Your task to perform on an android device: turn off notifications settings in the gmail app Image 0: 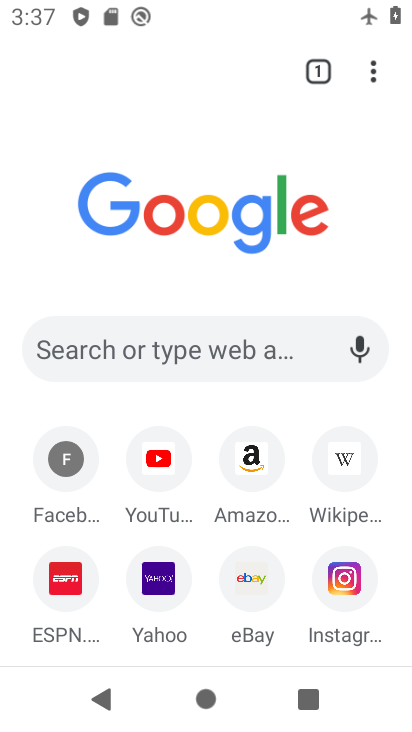
Step 0: press home button
Your task to perform on an android device: turn off notifications settings in the gmail app Image 1: 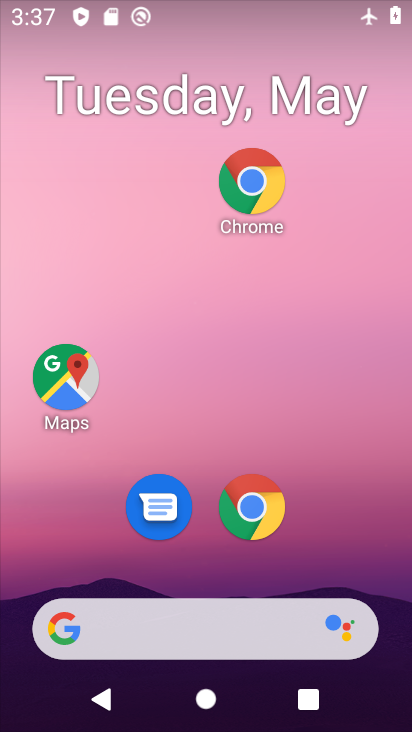
Step 1: drag from (374, 530) to (381, 135)
Your task to perform on an android device: turn off notifications settings in the gmail app Image 2: 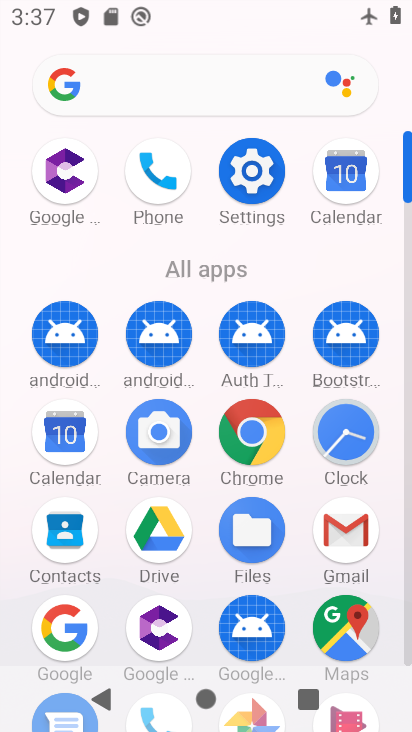
Step 2: click (342, 546)
Your task to perform on an android device: turn off notifications settings in the gmail app Image 3: 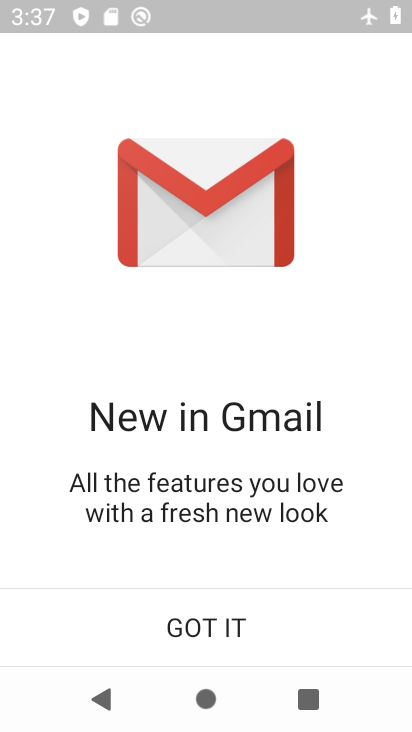
Step 3: click (217, 620)
Your task to perform on an android device: turn off notifications settings in the gmail app Image 4: 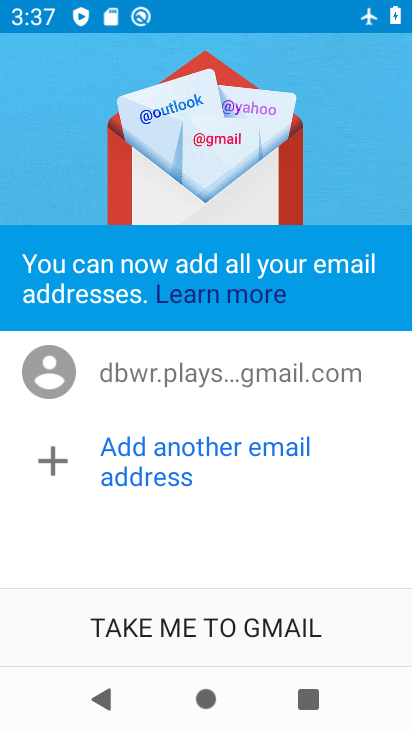
Step 4: click (217, 620)
Your task to perform on an android device: turn off notifications settings in the gmail app Image 5: 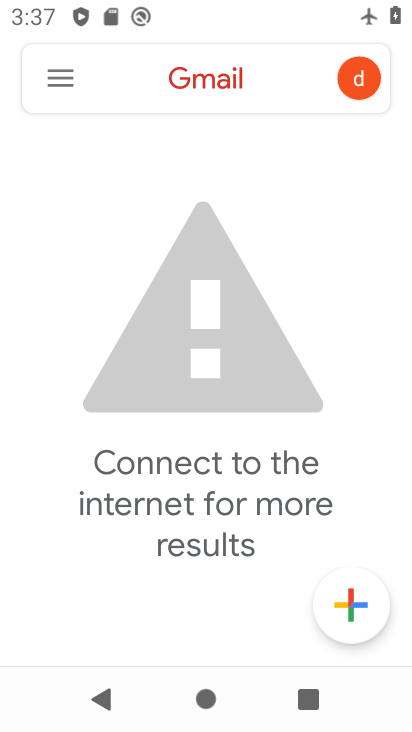
Step 5: click (75, 76)
Your task to perform on an android device: turn off notifications settings in the gmail app Image 6: 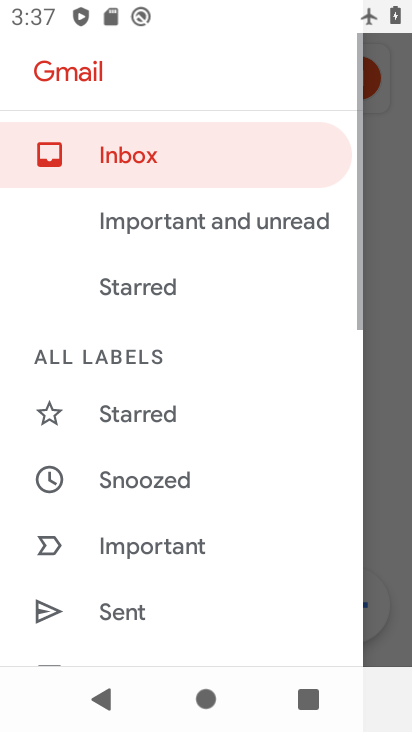
Step 6: drag from (234, 567) to (171, 197)
Your task to perform on an android device: turn off notifications settings in the gmail app Image 7: 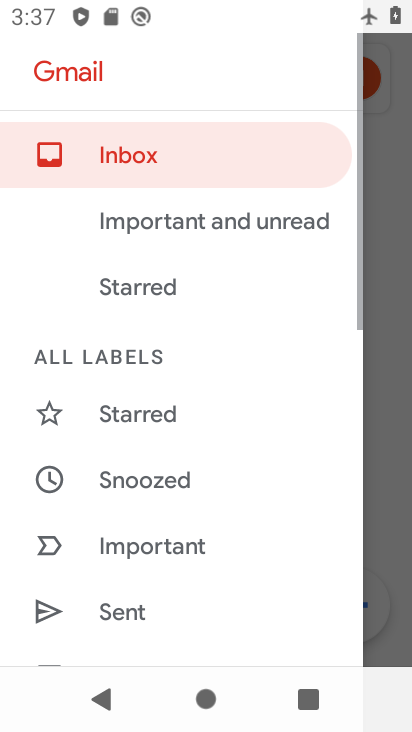
Step 7: drag from (160, 555) to (211, 269)
Your task to perform on an android device: turn off notifications settings in the gmail app Image 8: 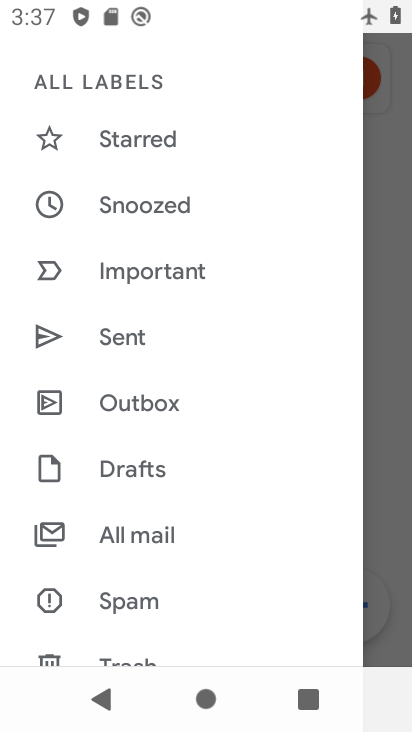
Step 8: drag from (175, 605) to (202, 258)
Your task to perform on an android device: turn off notifications settings in the gmail app Image 9: 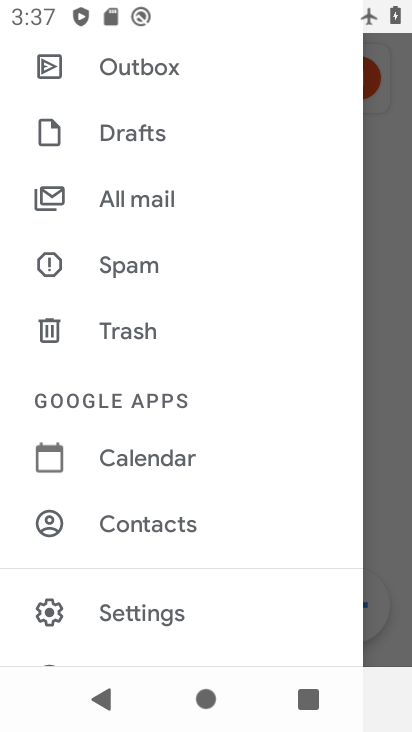
Step 9: click (127, 610)
Your task to perform on an android device: turn off notifications settings in the gmail app Image 10: 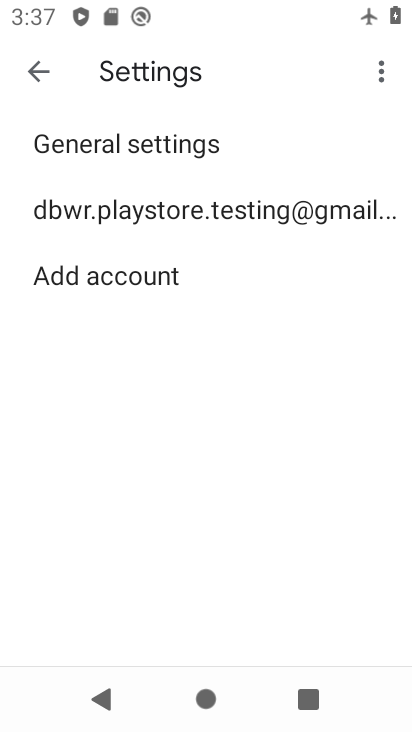
Step 10: click (171, 217)
Your task to perform on an android device: turn off notifications settings in the gmail app Image 11: 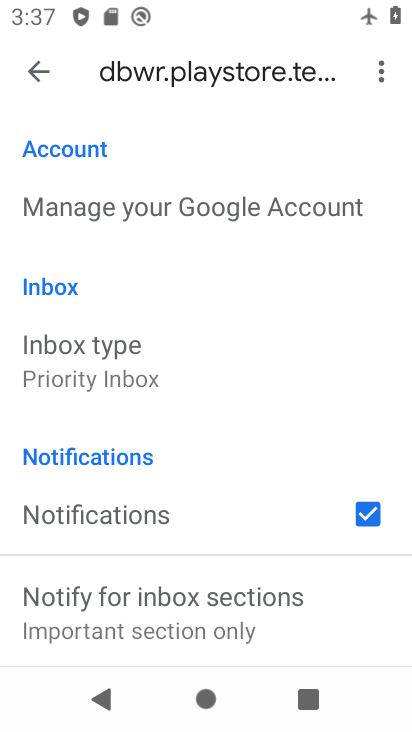
Step 11: click (135, 535)
Your task to perform on an android device: turn off notifications settings in the gmail app Image 12: 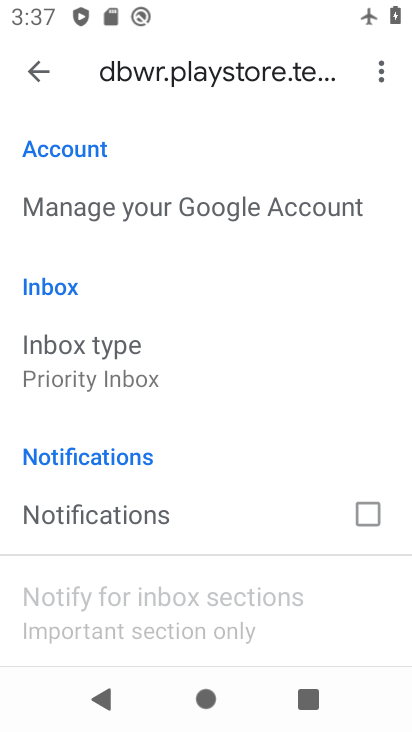
Step 12: task complete